Your task to perform on an android device: turn on wifi Image 0: 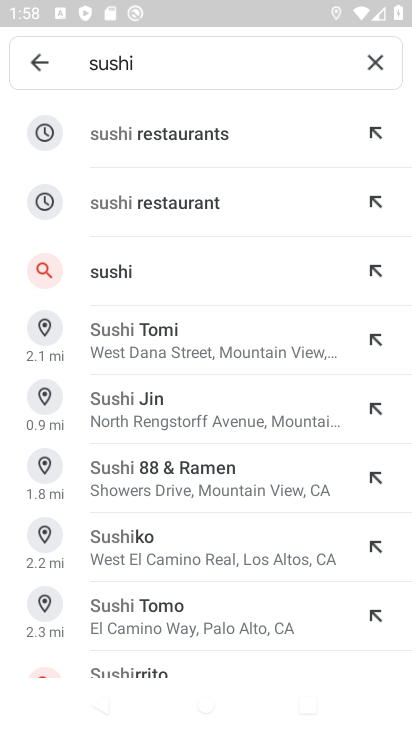
Step 0: press home button
Your task to perform on an android device: turn on wifi Image 1: 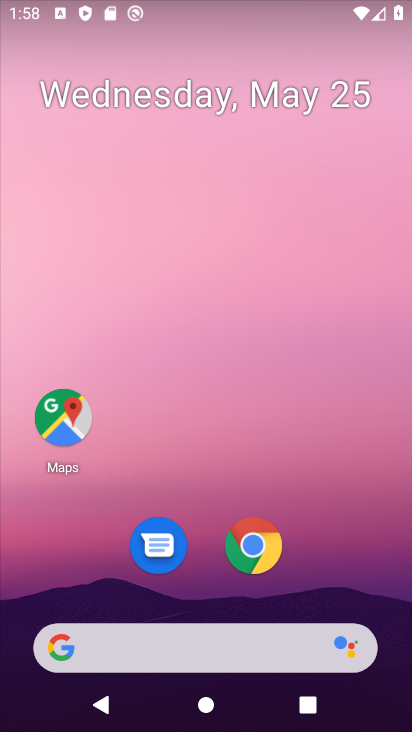
Step 1: drag from (346, 566) to (249, 111)
Your task to perform on an android device: turn on wifi Image 2: 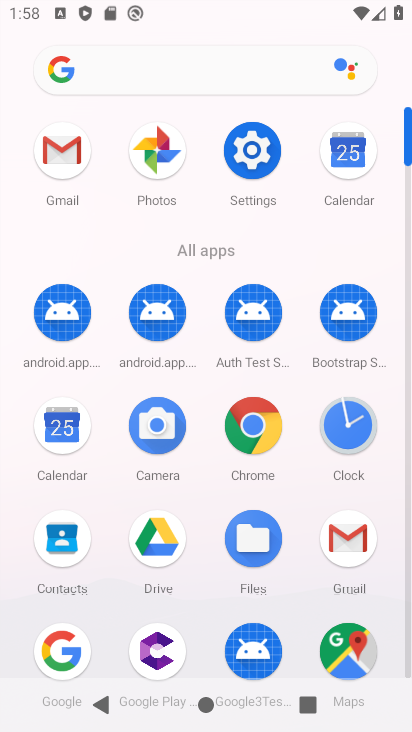
Step 2: click (248, 205)
Your task to perform on an android device: turn on wifi Image 3: 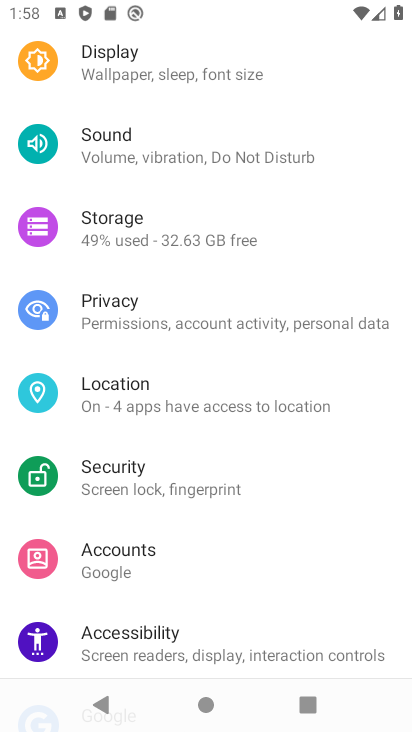
Step 3: task complete